Your task to perform on an android device: Open calendar and show me the first week of next month Image 0: 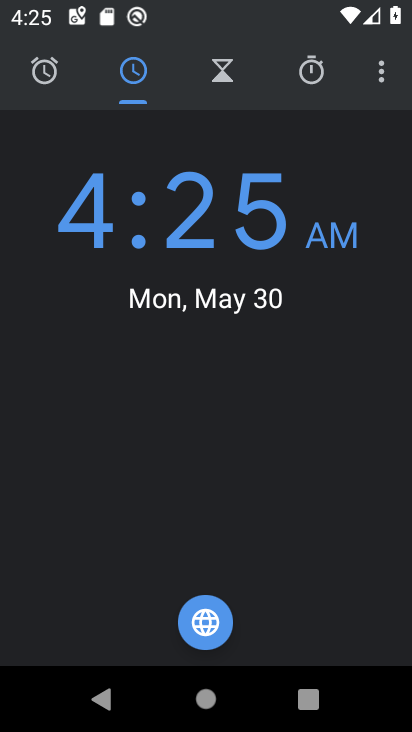
Step 0: press home button
Your task to perform on an android device: Open calendar and show me the first week of next month Image 1: 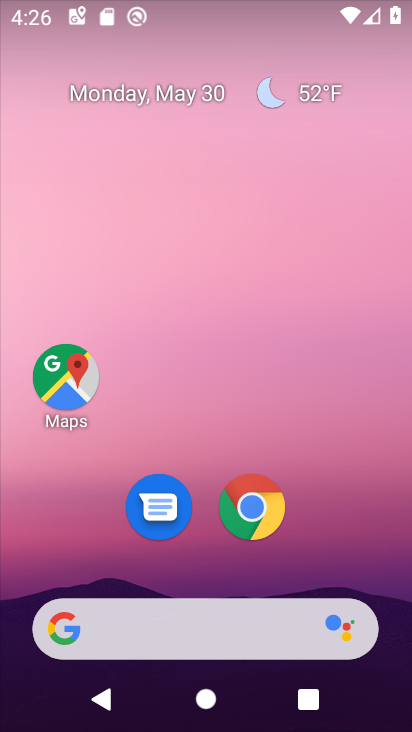
Step 1: drag from (324, 555) to (328, 244)
Your task to perform on an android device: Open calendar and show me the first week of next month Image 2: 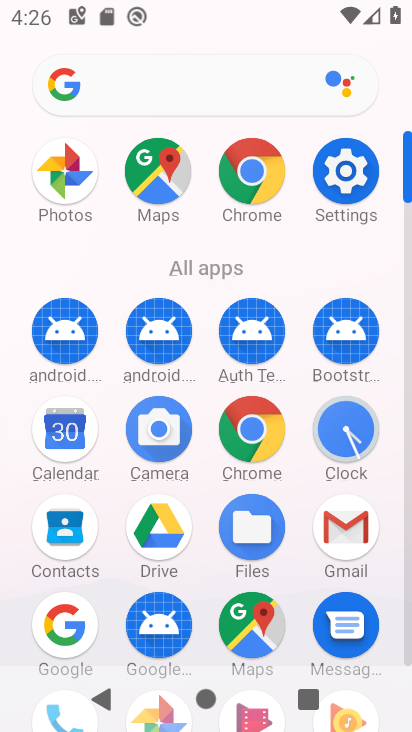
Step 2: click (54, 444)
Your task to perform on an android device: Open calendar and show me the first week of next month Image 3: 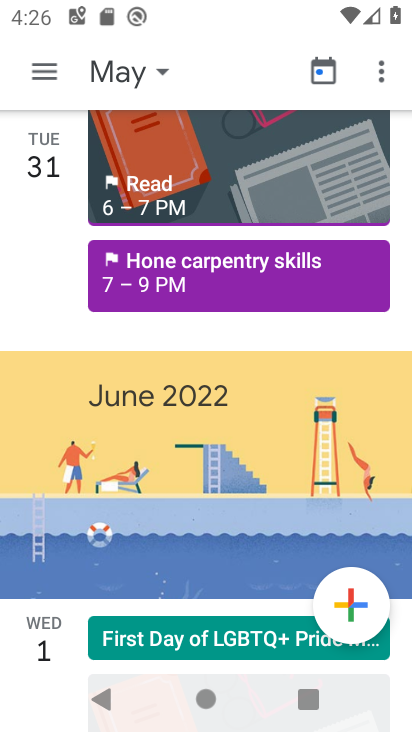
Step 3: click (138, 47)
Your task to perform on an android device: Open calendar and show me the first week of next month Image 4: 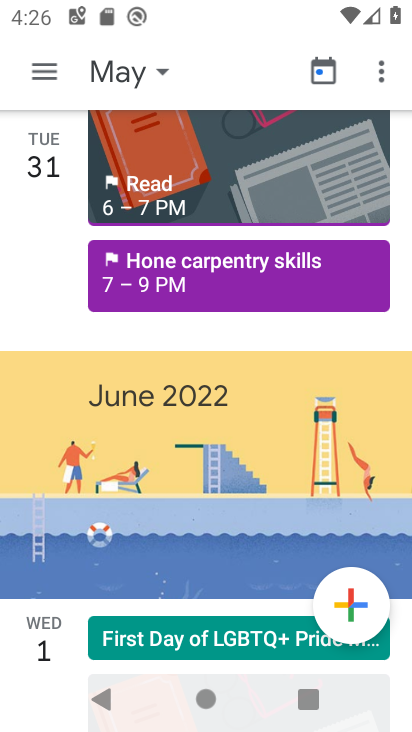
Step 4: click (128, 80)
Your task to perform on an android device: Open calendar and show me the first week of next month Image 5: 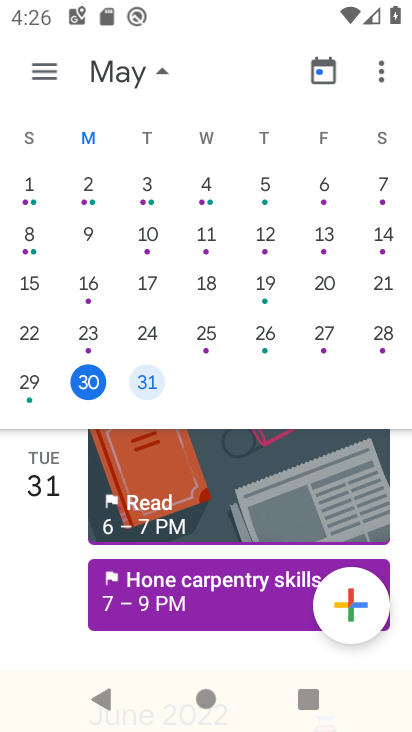
Step 5: drag from (348, 212) to (25, 204)
Your task to perform on an android device: Open calendar and show me the first week of next month Image 6: 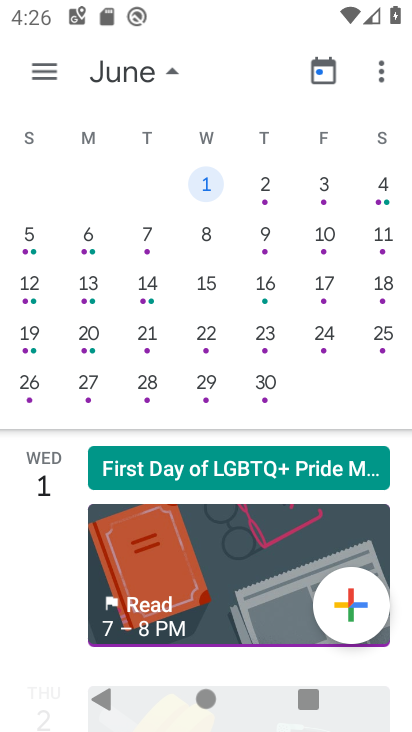
Step 6: click (381, 191)
Your task to perform on an android device: Open calendar and show me the first week of next month Image 7: 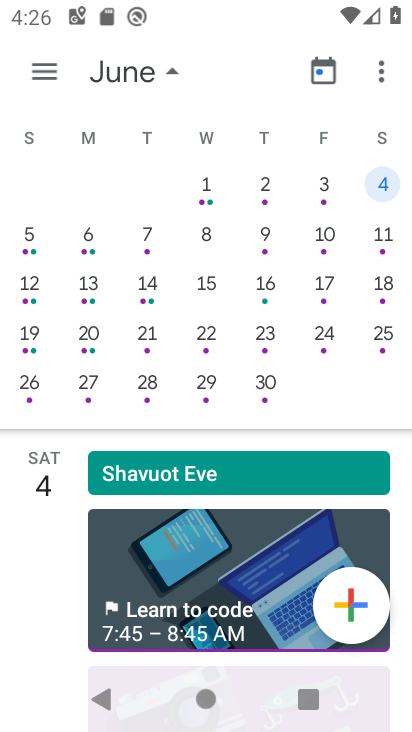
Step 7: task complete